Your task to perform on an android device: Open Google Chrome Image 0: 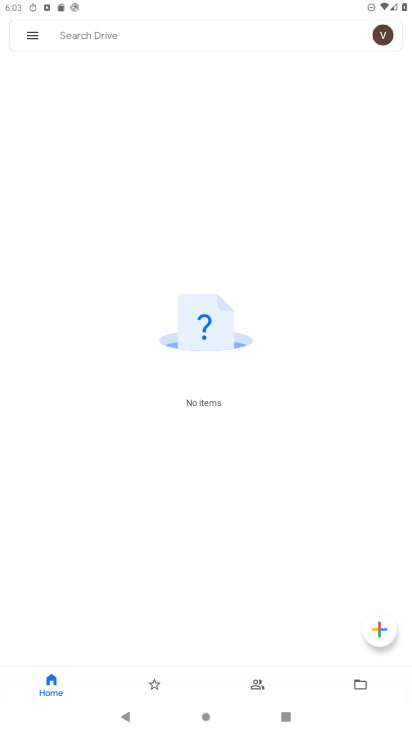
Step 0: press home button
Your task to perform on an android device: Open Google Chrome Image 1: 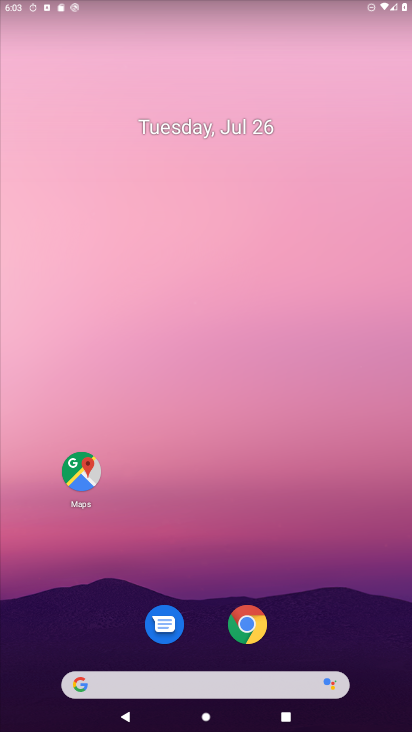
Step 1: drag from (99, 592) to (187, 99)
Your task to perform on an android device: Open Google Chrome Image 2: 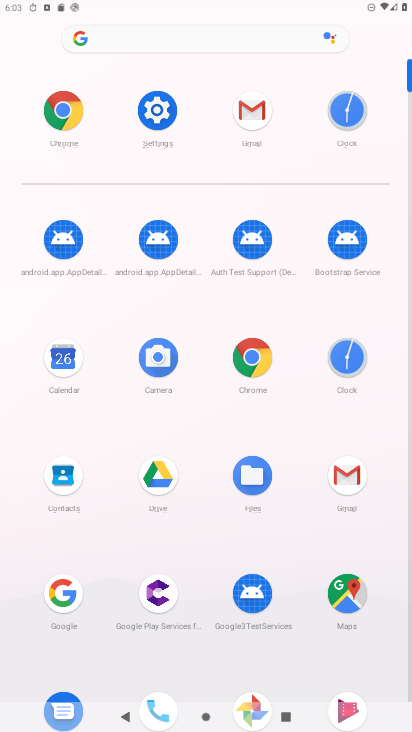
Step 2: click (255, 362)
Your task to perform on an android device: Open Google Chrome Image 3: 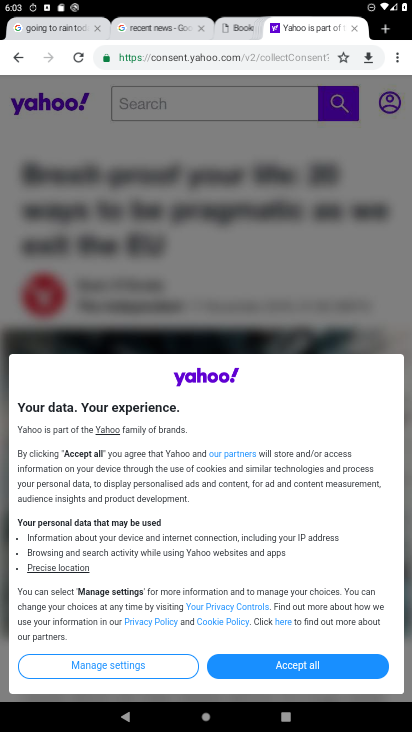
Step 3: click (397, 55)
Your task to perform on an android device: Open Google Chrome Image 4: 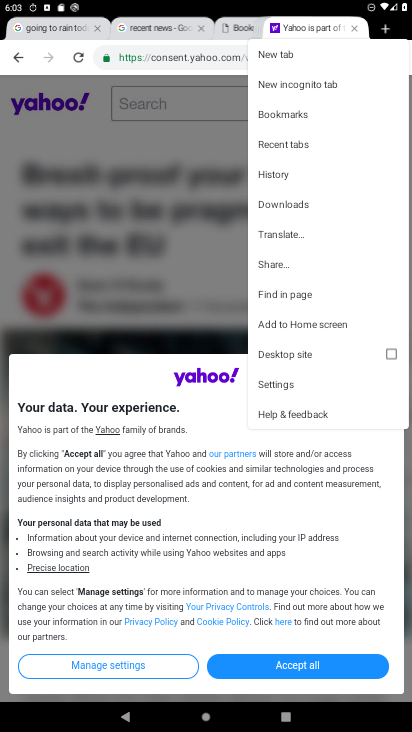
Step 4: click (314, 62)
Your task to perform on an android device: Open Google Chrome Image 5: 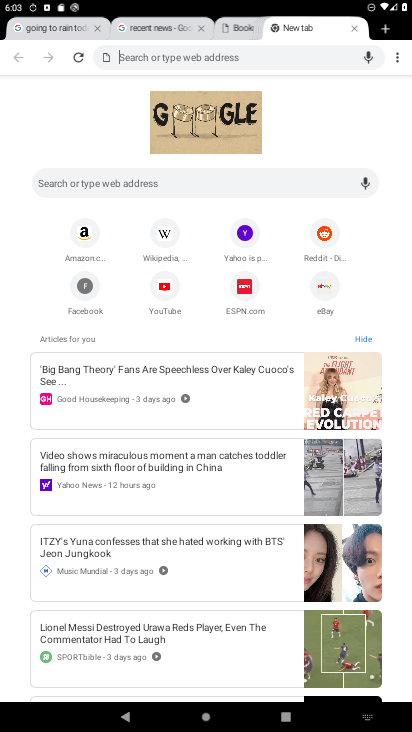
Step 5: task complete